Your task to perform on an android device: Show the shopping cart on target. Image 0: 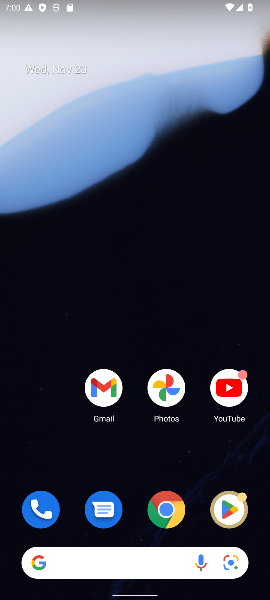
Step 0: click (165, 520)
Your task to perform on an android device: Show the shopping cart on target. Image 1: 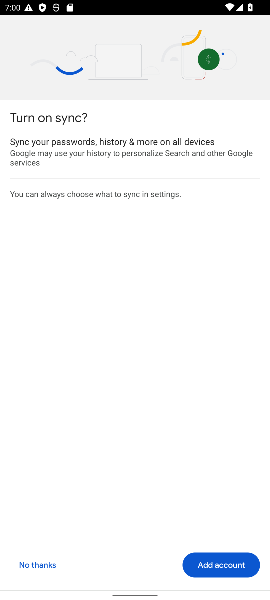
Step 1: click (46, 566)
Your task to perform on an android device: Show the shopping cart on target. Image 2: 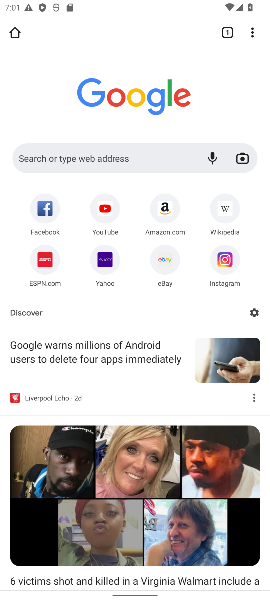
Step 2: click (136, 152)
Your task to perform on an android device: Show the shopping cart on target. Image 3: 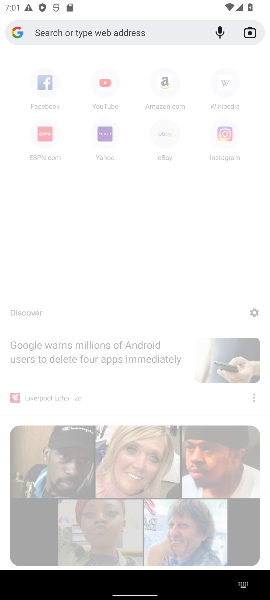
Step 3: type "target"
Your task to perform on an android device: Show the shopping cart on target. Image 4: 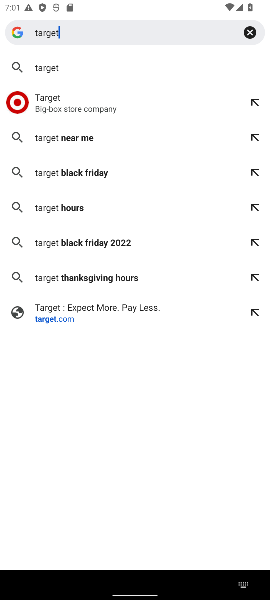
Step 4: click (113, 303)
Your task to perform on an android device: Show the shopping cart on target. Image 5: 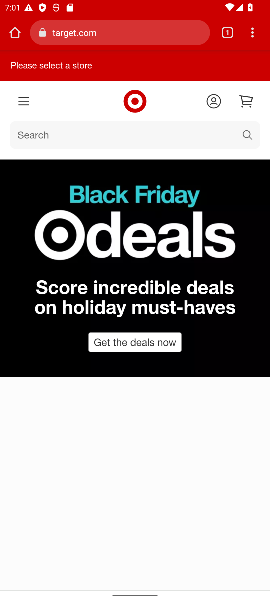
Step 5: click (244, 106)
Your task to perform on an android device: Show the shopping cart on target. Image 6: 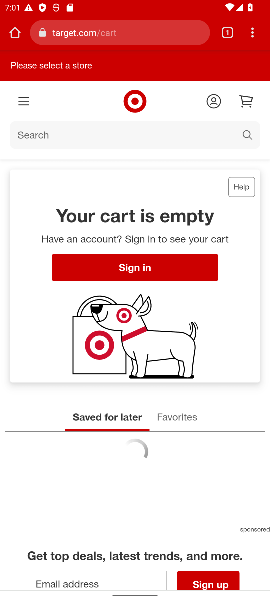
Step 6: task complete